Your task to perform on an android device: clear all cookies in the chrome app Image 0: 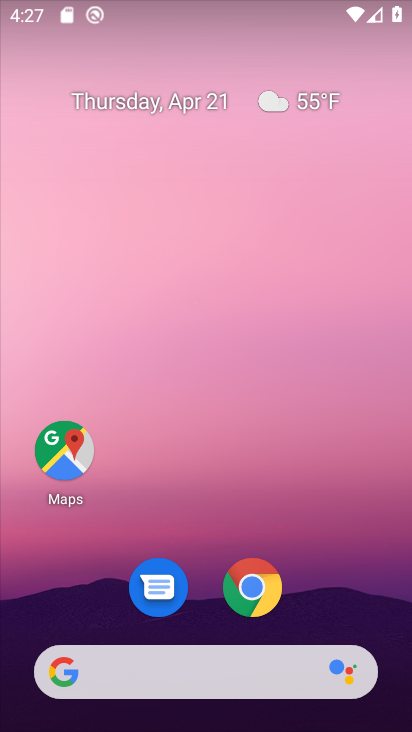
Step 0: click (250, 585)
Your task to perform on an android device: clear all cookies in the chrome app Image 1: 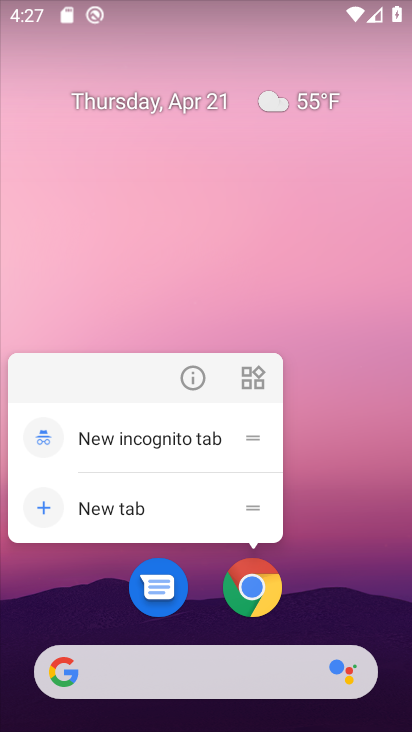
Step 1: click (262, 597)
Your task to perform on an android device: clear all cookies in the chrome app Image 2: 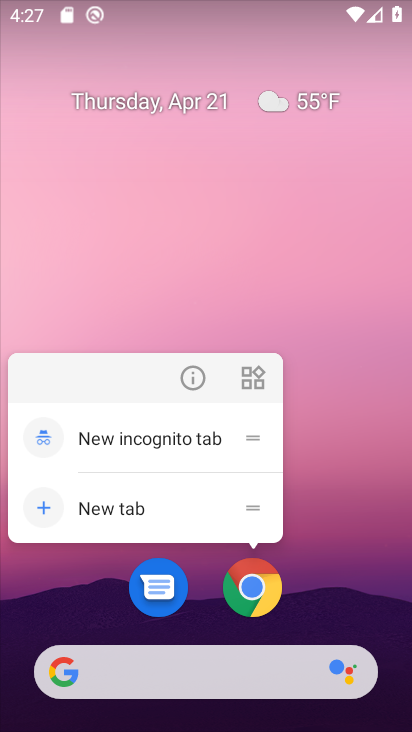
Step 2: click (261, 595)
Your task to perform on an android device: clear all cookies in the chrome app Image 3: 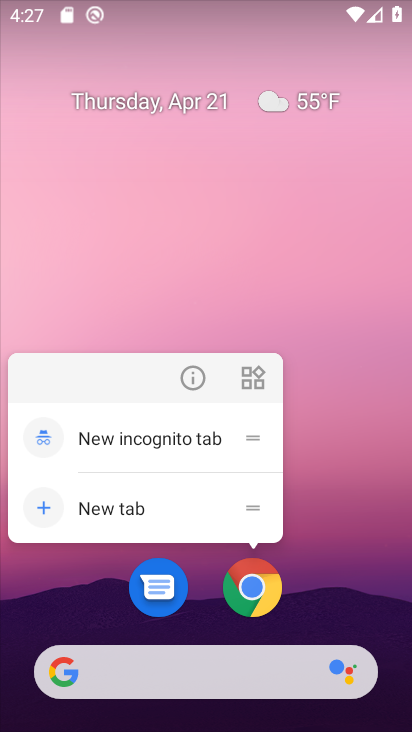
Step 3: click (262, 594)
Your task to perform on an android device: clear all cookies in the chrome app Image 4: 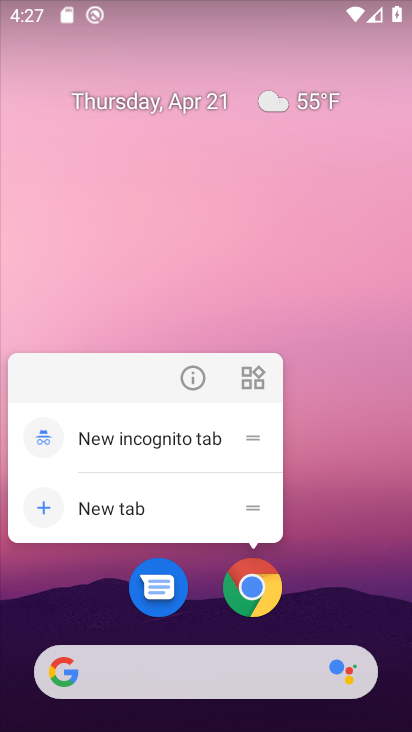
Step 4: click (264, 592)
Your task to perform on an android device: clear all cookies in the chrome app Image 5: 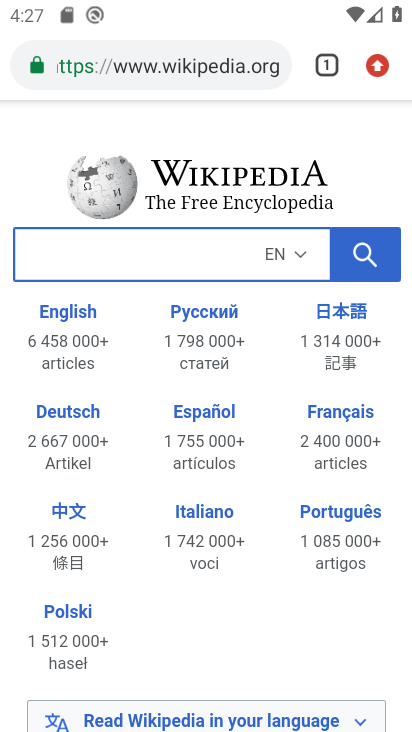
Step 5: drag from (373, 59) to (229, 644)
Your task to perform on an android device: clear all cookies in the chrome app Image 6: 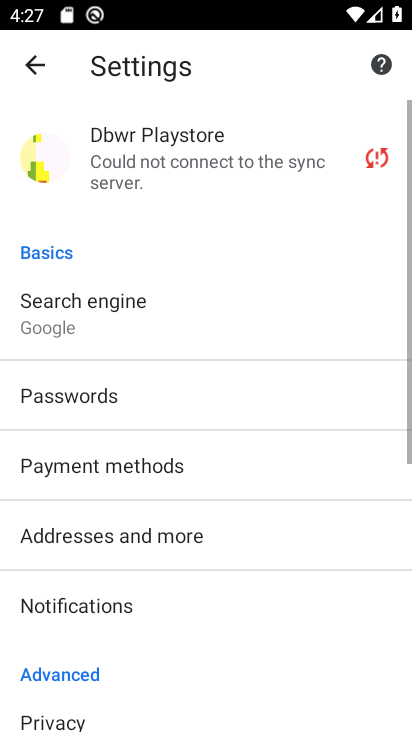
Step 6: drag from (144, 635) to (255, 311)
Your task to perform on an android device: clear all cookies in the chrome app Image 7: 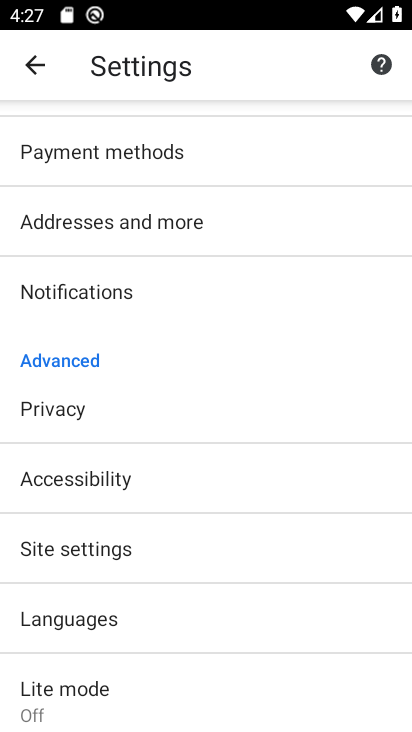
Step 7: click (98, 413)
Your task to perform on an android device: clear all cookies in the chrome app Image 8: 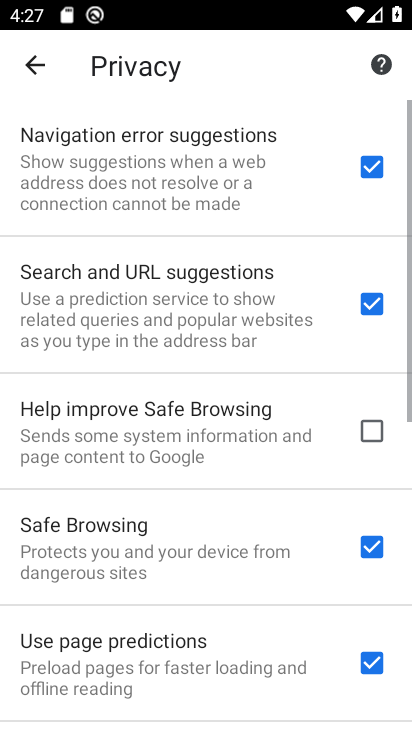
Step 8: drag from (142, 577) to (230, 102)
Your task to perform on an android device: clear all cookies in the chrome app Image 9: 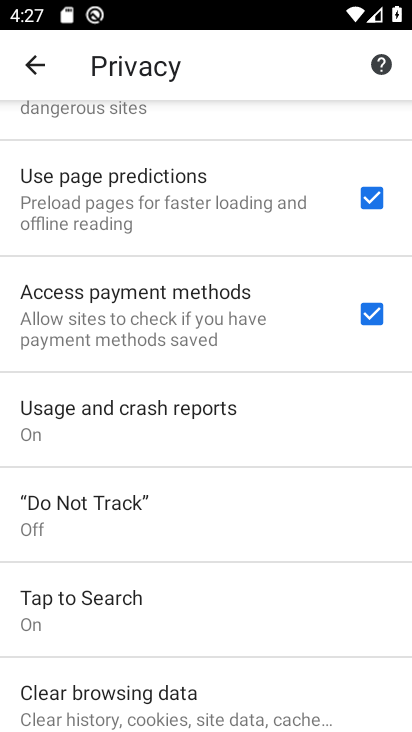
Step 9: click (168, 702)
Your task to perform on an android device: clear all cookies in the chrome app Image 10: 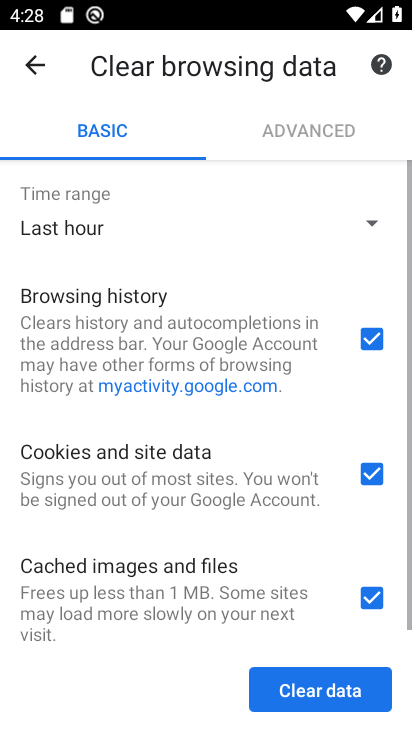
Step 10: click (367, 341)
Your task to perform on an android device: clear all cookies in the chrome app Image 11: 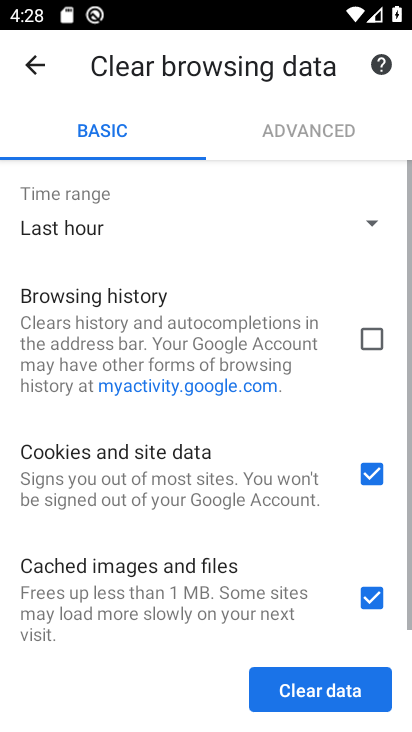
Step 11: click (372, 601)
Your task to perform on an android device: clear all cookies in the chrome app Image 12: 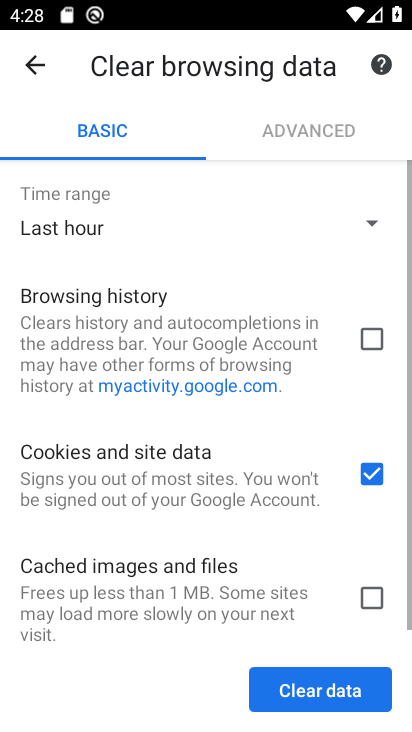
Step 12: click (323, 686)
Your task to perform on an android device: clear all cookies in the chrome app Image 13: 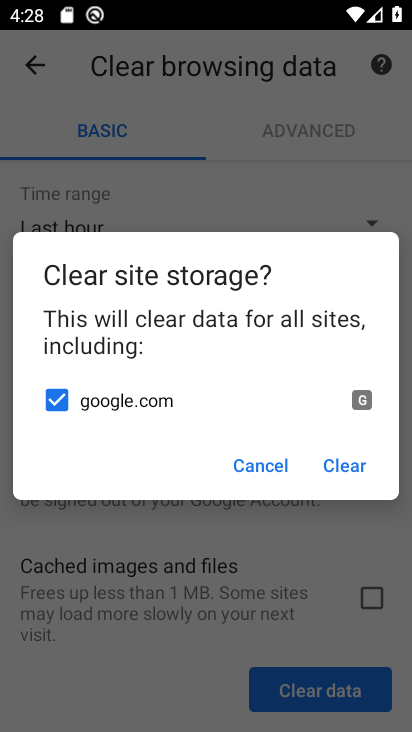
Step 13: click (350, 460)
Your task to perform on an android device: clear all cookies in the chrome app Image 14: 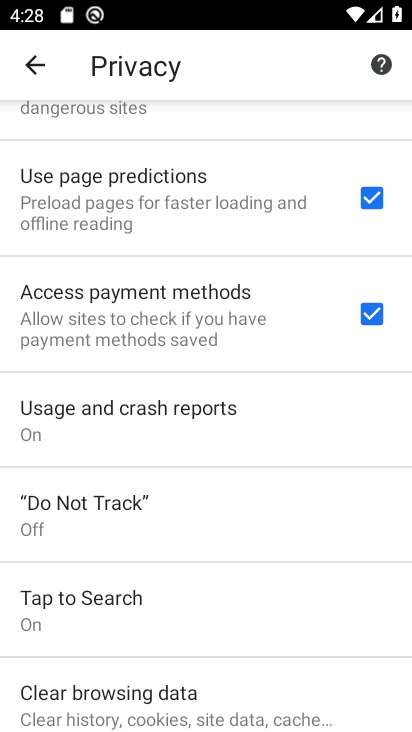
Step 14: task complete